Your task to perform on an android device: Search for pizza restaurants on Maps Image 0: 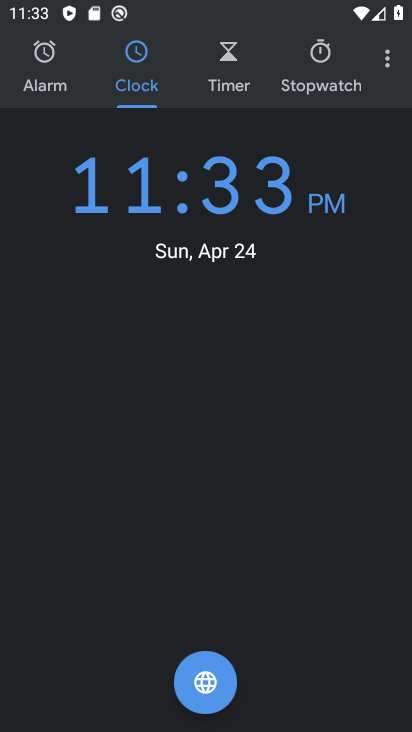
Step 0: press home button
Your task to perform on an android device: Search for pizza restaurants on Maps Image 1: 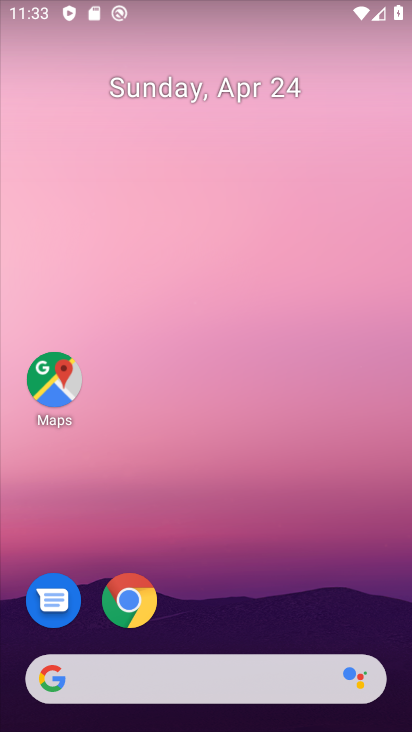
Step 1: drag from (252, 704) to (237, 72)
Your task to perform on an android device: Search for pizza restaurants on Maps Image 2: 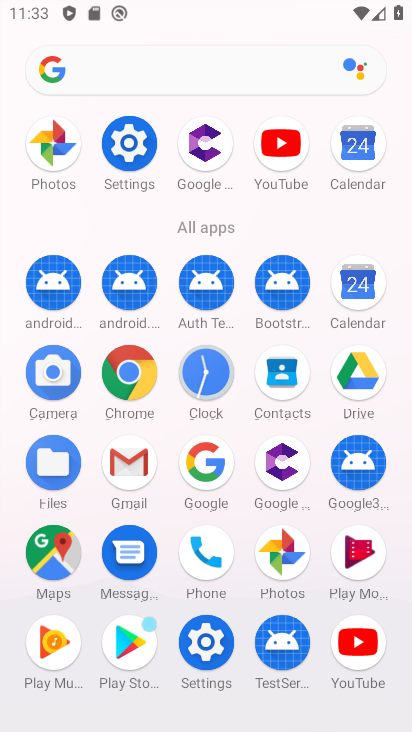
Step 2: click (56, 564)
Your task to perform on an android device: Search for pizza restaurants on Maps Image 3: 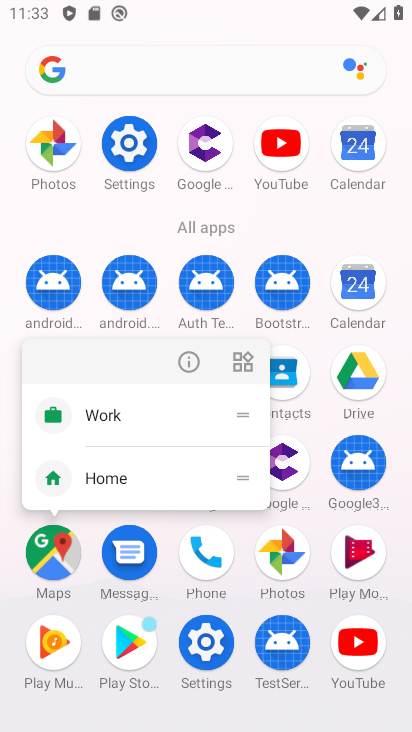
Step 3: click (56, 564)
Your task to perform on an android device: Search for pizza restaurants on Maps Image 4: 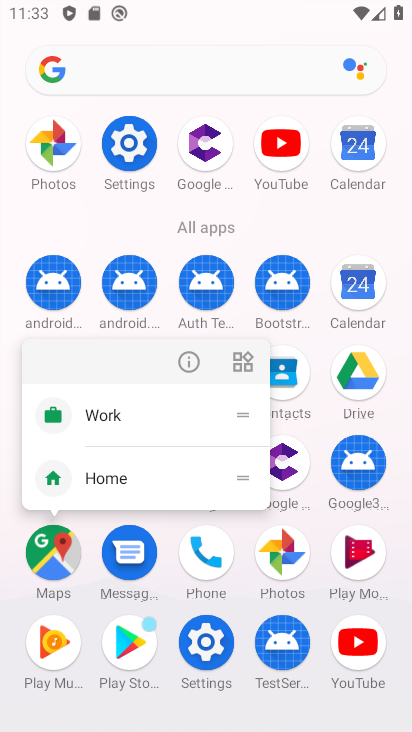
Step 4: click (56, 564)
Your task to perform on an android device: Search for pizza restaurants on Maps Image 5: 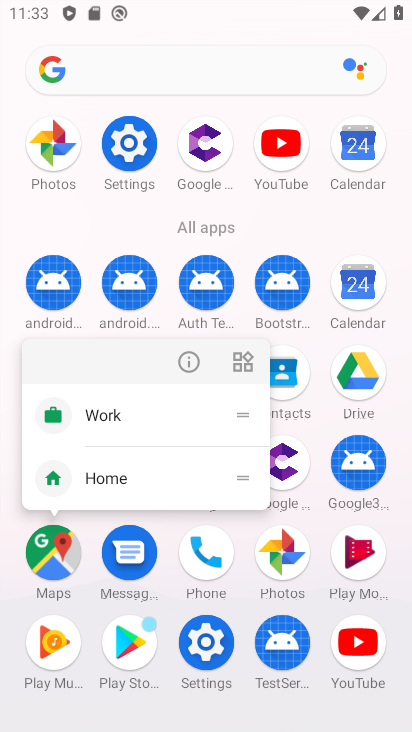
Step 5: click (56, 564)
Your task to perform on an android device: Search for pizza restaurants on Maps Image 6: 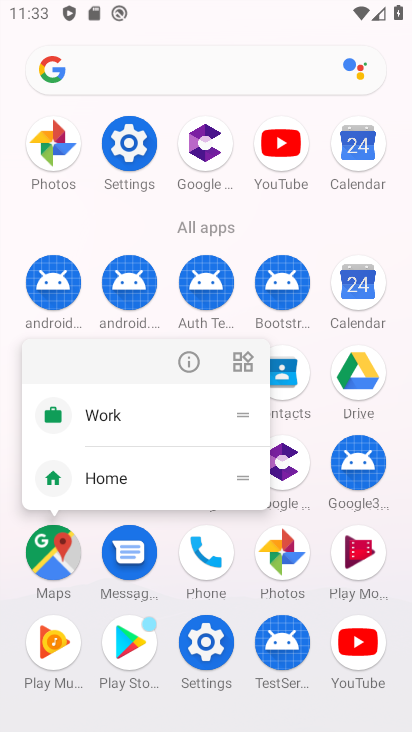
Step 6: click (56, 564)
Your task to perform on an android device: Search for pizza restaurants on Maps Image 7: 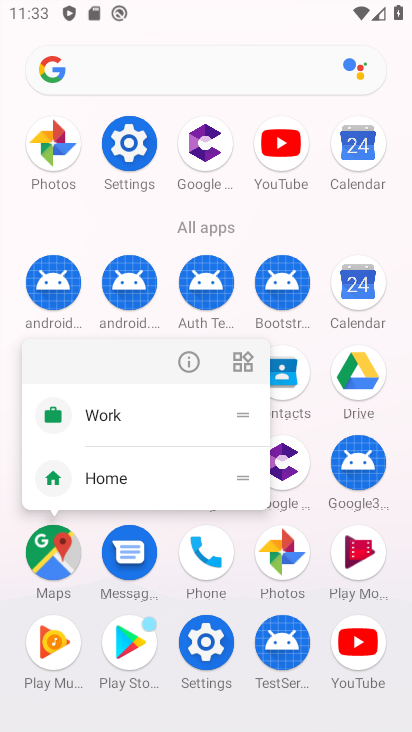
Step 7: click (56, 564)
Your task to perform on an android device: Search for pizza restaurants on Maps Image 8: 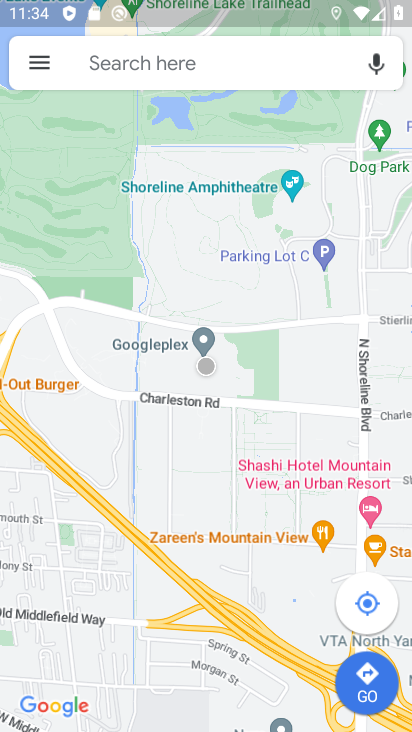
Step 8: click (211, 71)
Your task to perform on an android device: Search for pizza restaurants on Maps Image 9: 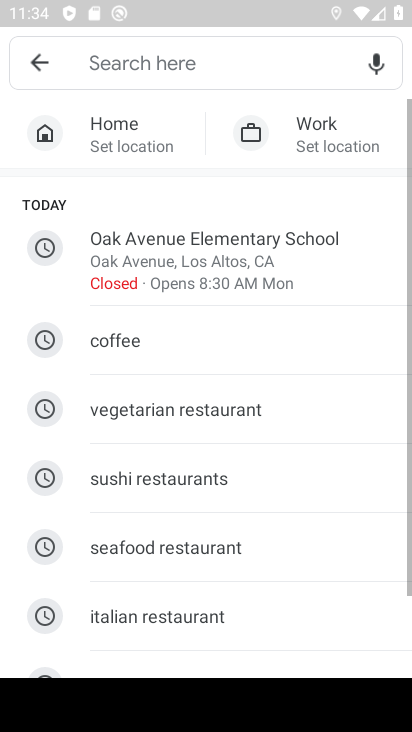
Step 9: click (211, 71)
Your task to perform on an android device: Search for pizza restaurants on Maps Image 10: 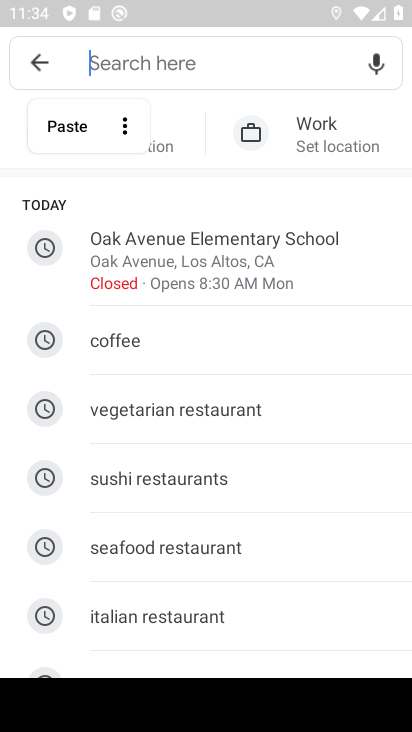
Step 10: type "pizza restaurants"
Your task to perform on an android device: Search for pizza restaurants on Maps Image 11: 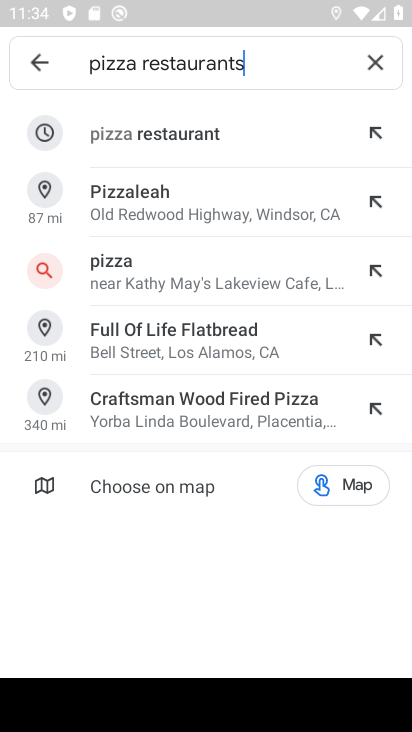
Step 11: click (193, 135)
Your task to perform on an android device: Search for pizza restaurants on Maps Image 12: 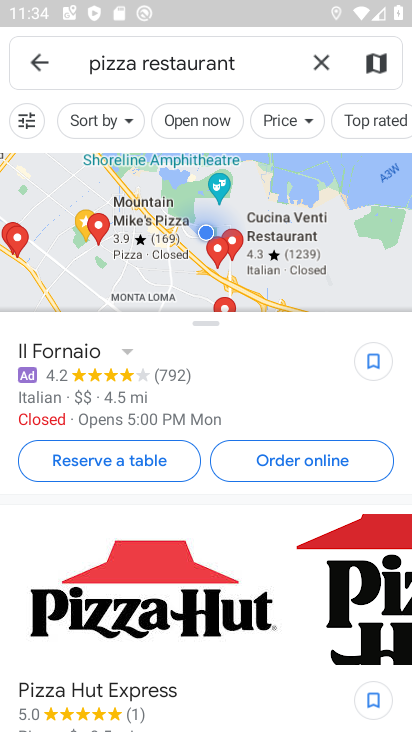
Step 12: task complete